Your task to perform on an android device: Open a new Chrome incognito window Image 0: 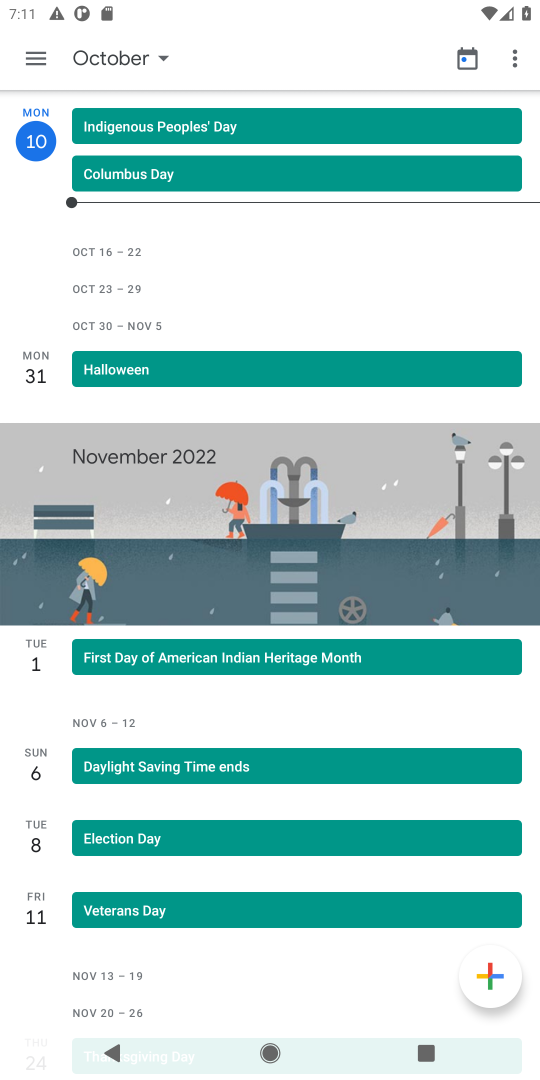
Step 0: press home button
Your task to perform on an android device: Open a new Chrome incognito window Image 1: 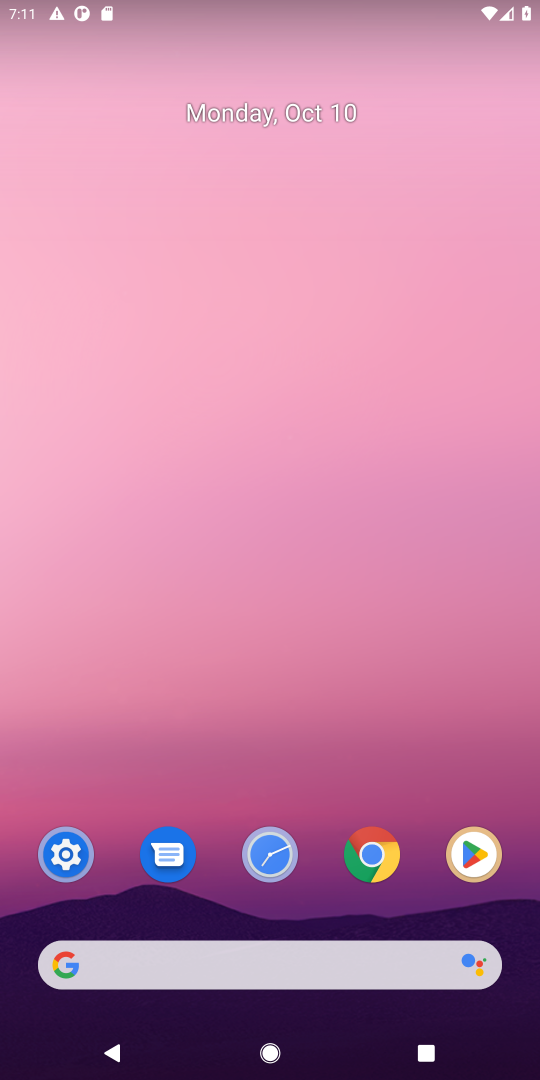
Step 1: click (365, 859)
Your task to perform on an android device: Open a new Chrome incognito window Image 2: 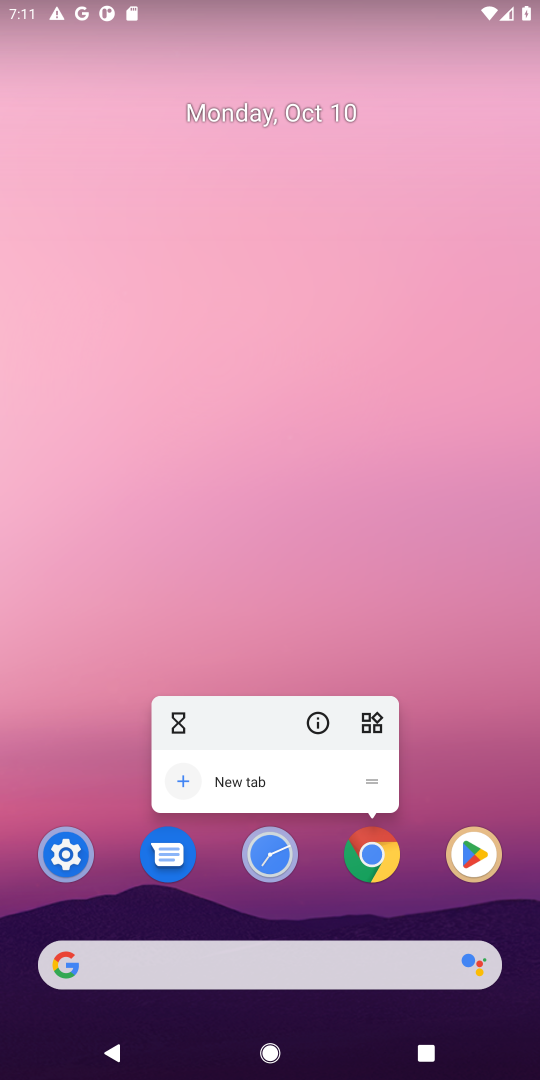
Step 2: click (375, 853)
Your task to perform on an android device: Open a new Chrome incognito window Image 3: 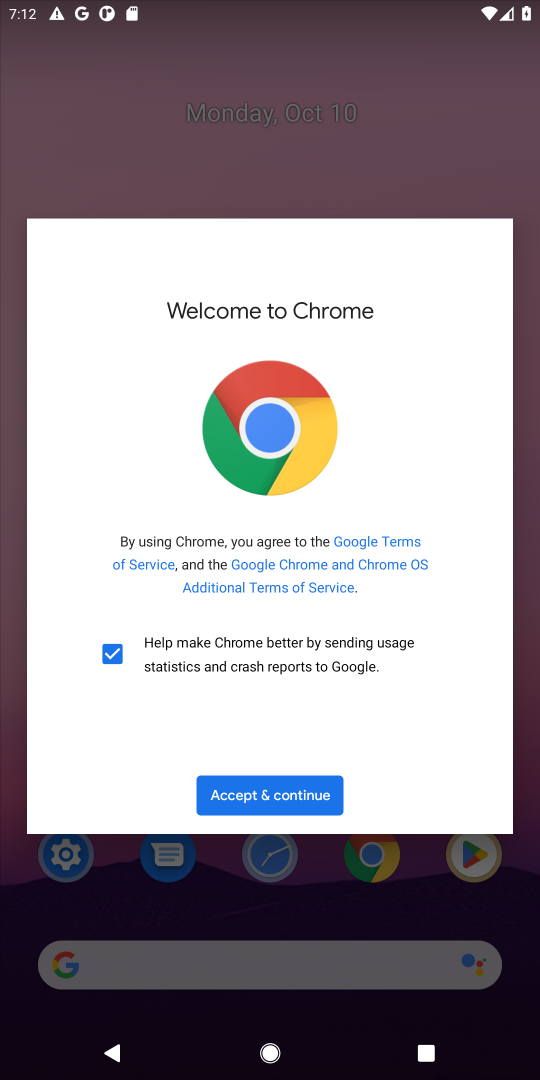
Step 3: click (275, 786)
Your task to perform on an android device: Open a new Chrome incognito window Image 4: 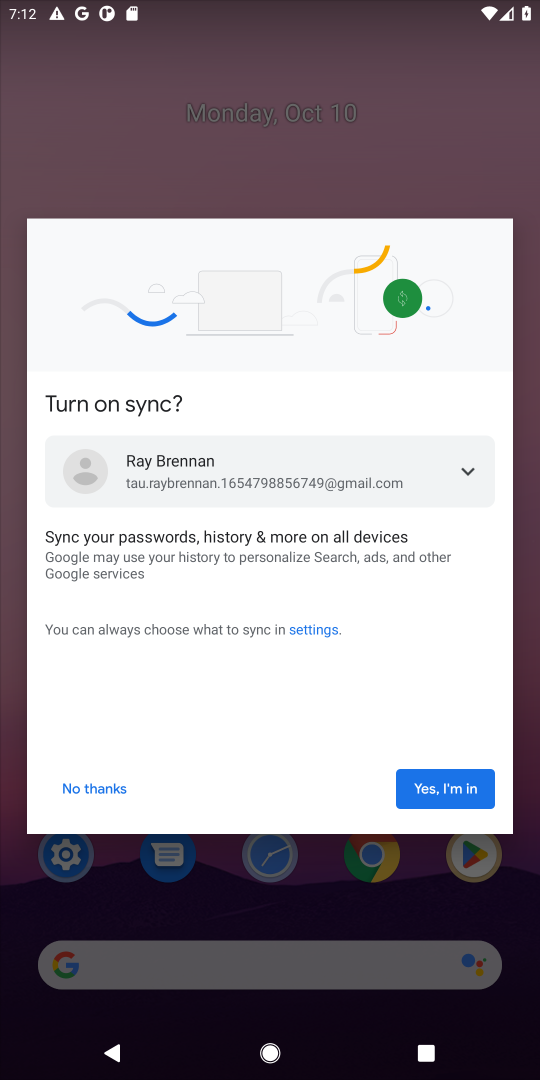
Step 4: click (453, 784)
Your task to perform on an android device: Open a new Chrome incognito window Image 5: 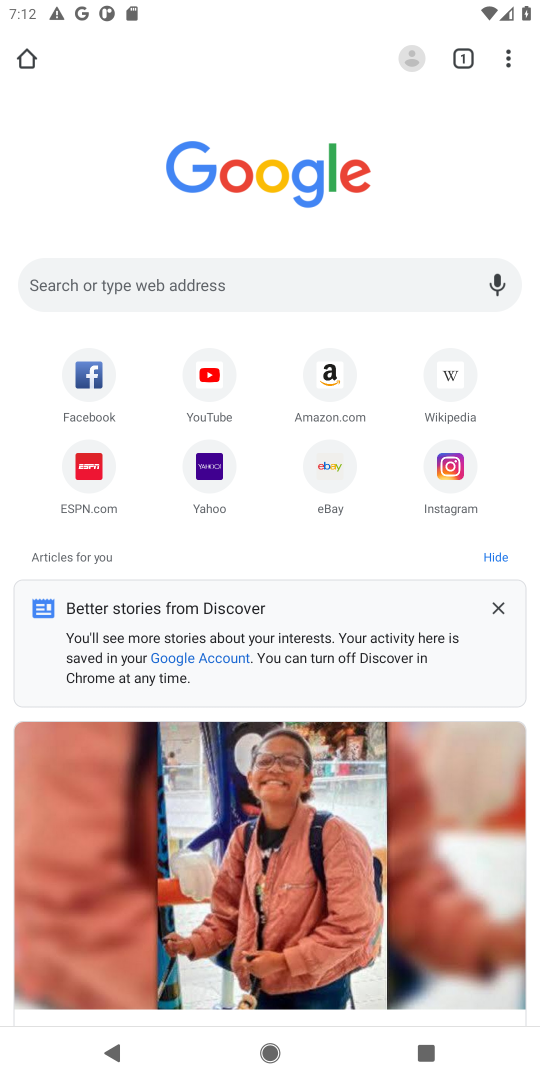
Step 5: task complete